Your task to perform on an android device: delete location history Image 0: 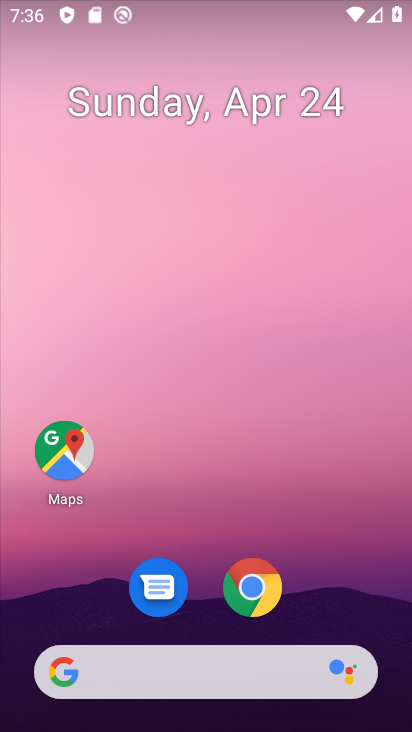
Step 0: drag from (352, 569) to (315, 58)
Your task to perform on an android device: delete location history Image 1: 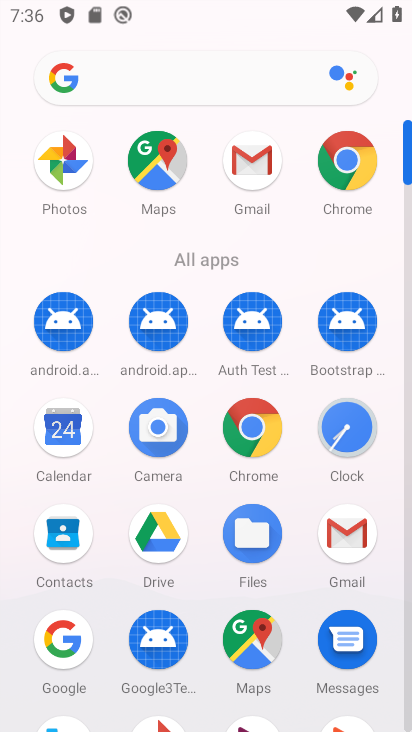
Step 1: drag from (214, 562) to (259, 185)
Your task to perform on an android device: delete location history Image 2: 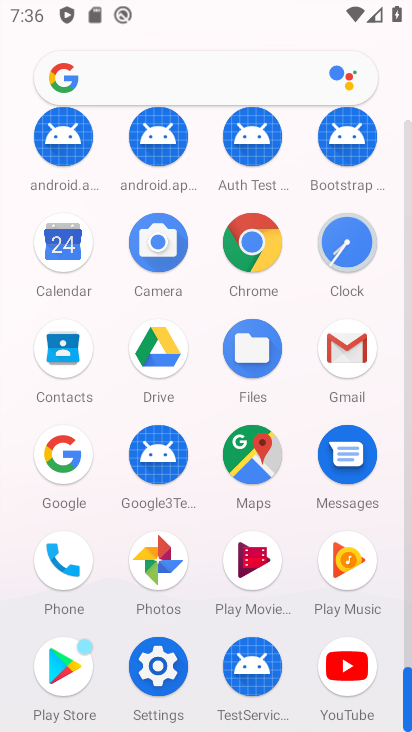
Step 2: click (157, 667)
Your task to perform on an android device: delete location history Image 3: 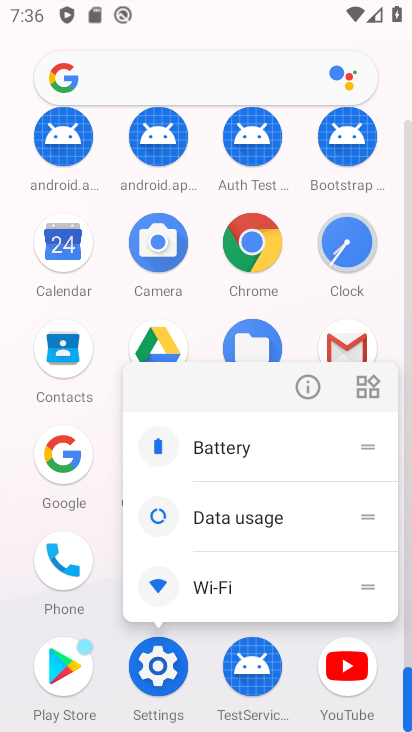
Step 3: click (157, 660)
Your task to perform on an android device: delete location history Image 4: 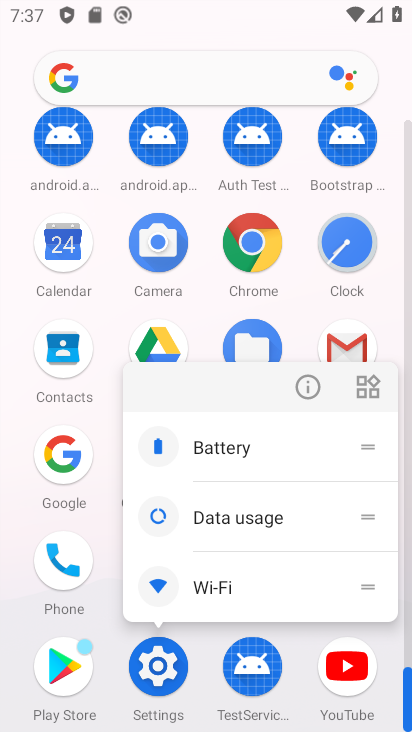
Step 4: click (159, 677)
Your task to perform on an android device: delete location history Image 5: 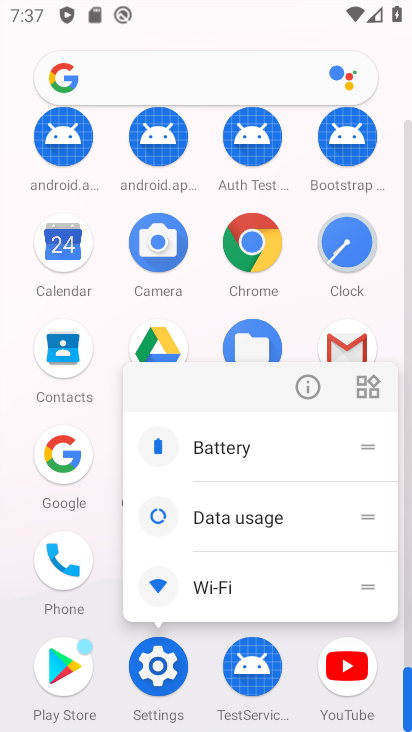
Step 5: click (162, 689)
Your task to perform on an android device: delete location history Image 6: 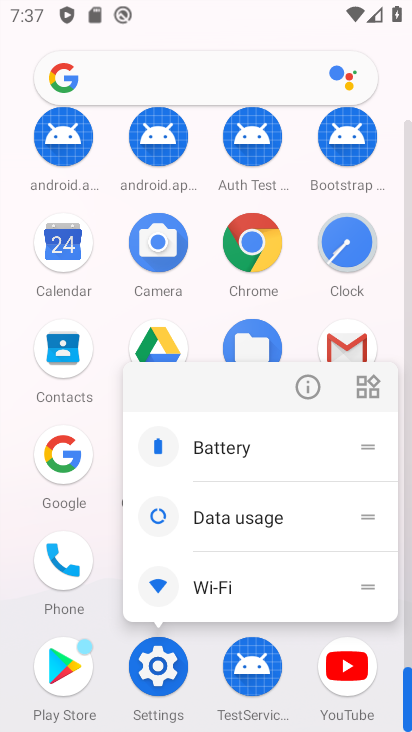
Step 6: click (158, 693)
Your task to perform on an android device: delete location history Image 7: 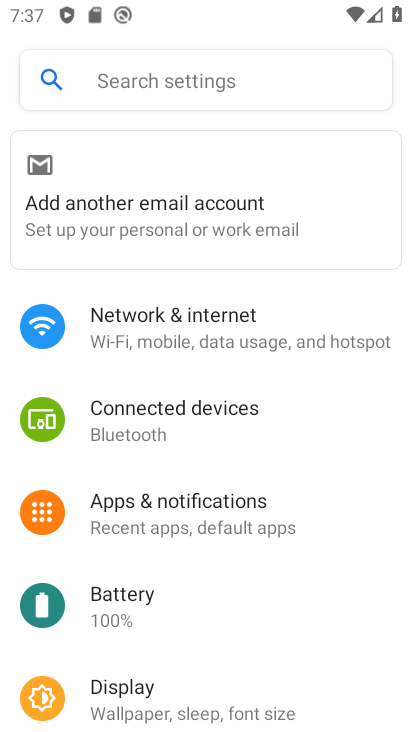
Step 7: drag from (334, 672) to (344, 292)
Your task to perform on an android device: delete location history Image 8: 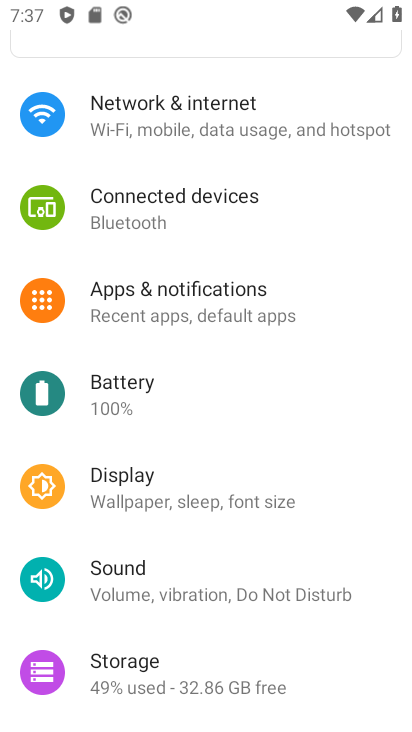
Step 8: drag from (329, 667) to (374, 349)
Your task to perform on an android device: delete location history Image 9: 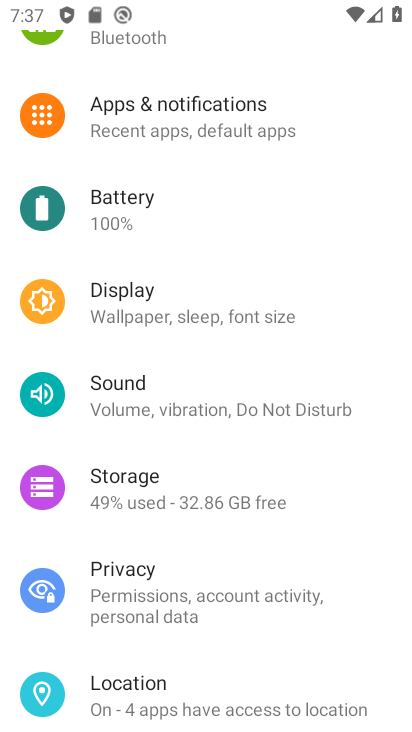
Step 9: click (226, 709)
Your task to perform on an android device: delete location history Image 10: 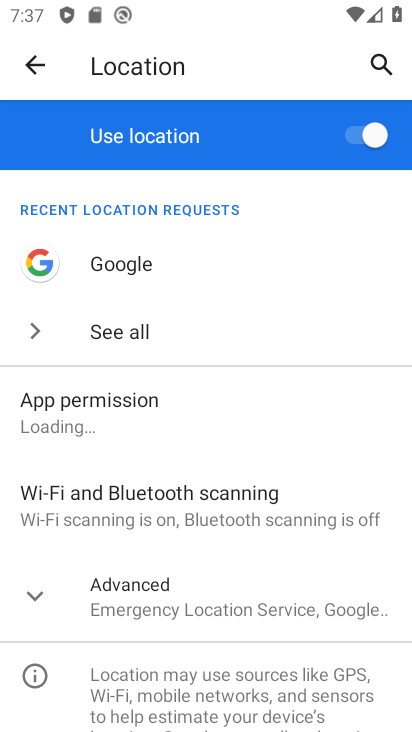
Step 10: click (256, 599)
Your task to perform on an android device: delete location history Image 11: 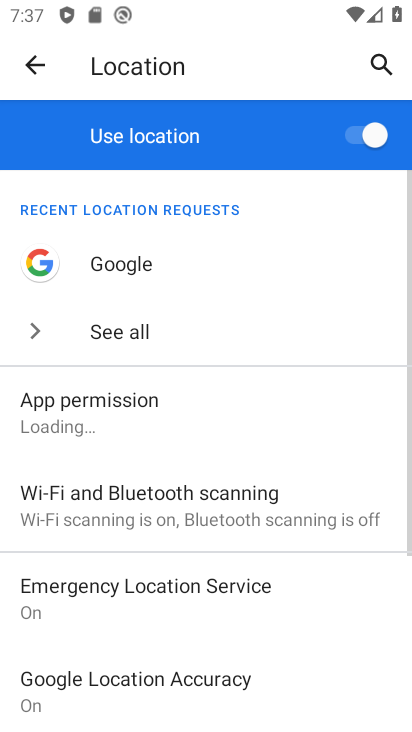
Step 11: drag from (344, 645) to (335, 280)
Your task to perform on an android device: delete location history Image 12: 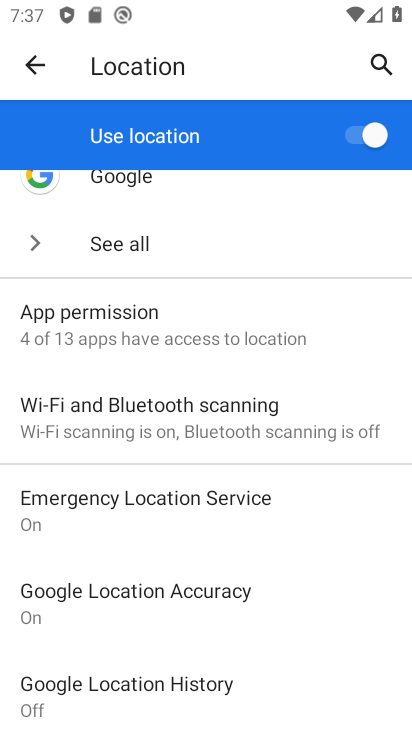
Step 12: drag from (300, 679) to (353, 338)
Your task to perform on an android device: delete location history Image 13: 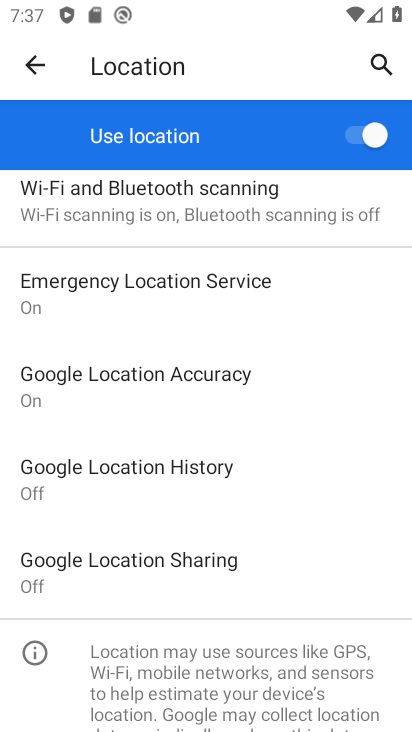
Step 13: click (167, 465)
Your task to perform on an android device: delete location history Image 14: 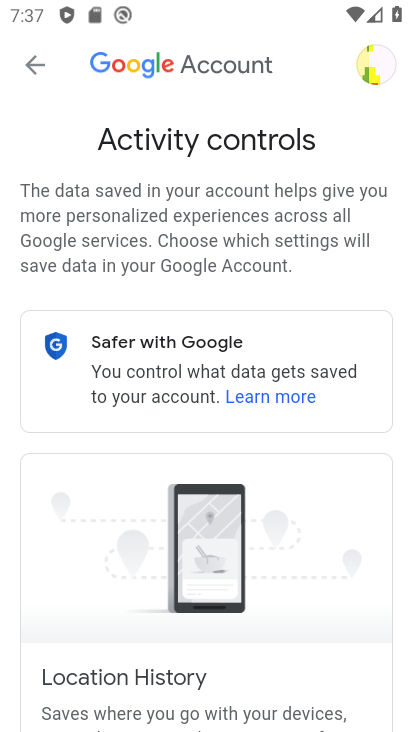
Step 14: drag from (340, 620) to (340, 200)
Your task to perform on an android device: delete location history Image 15: 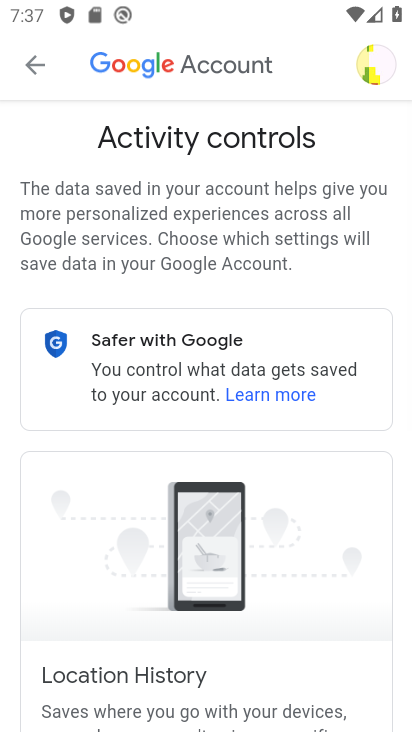
Step 15: drag from (315, 554) to (362, 207)
Your task to perform on an android device: delete location history Image 16: 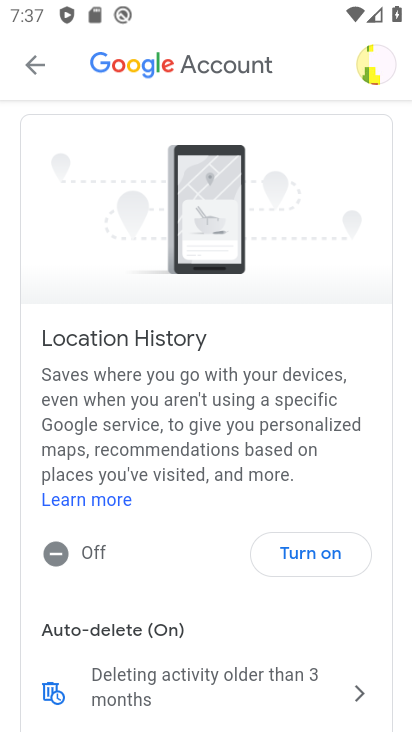
Step 16: drag from (269, 603) to (309, 243)
Your task to perform on an android device: delete location history Image 17: 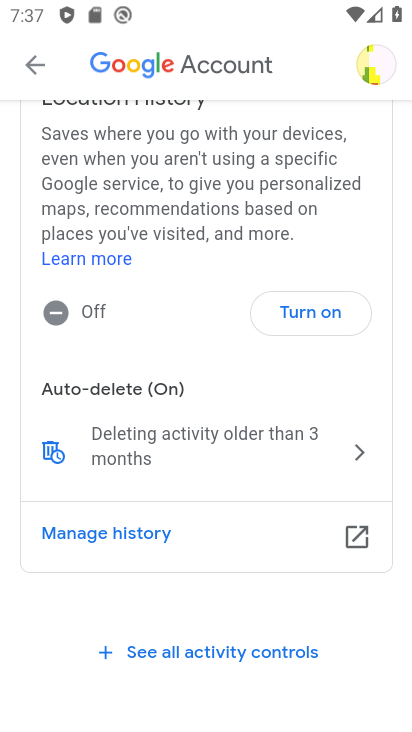
Step 17: click (93, 535)
Your task to perform on an android device: delete location history Image 18: 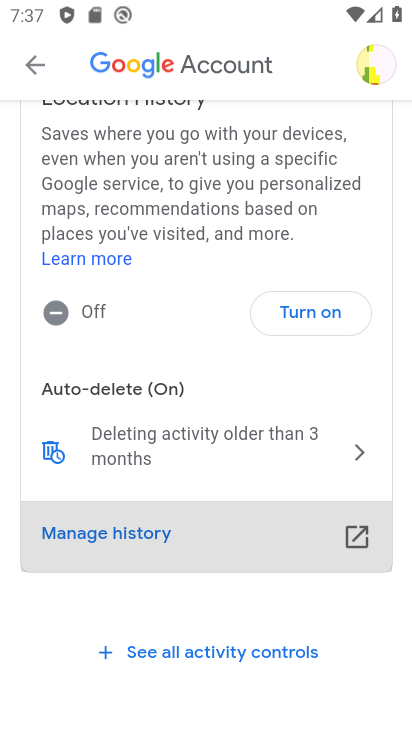
Step 18: click (110, 530)
Your task to perform on an android device: delete location history Image 19: 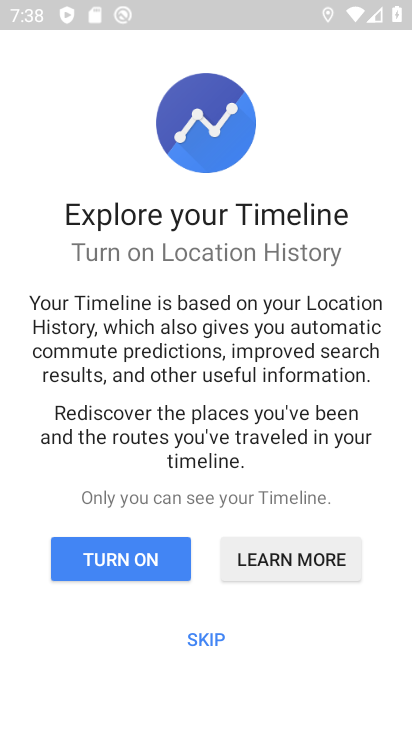
Step 19: click (207, 631)
Your task to perform on an android device: delete location history Image 20: 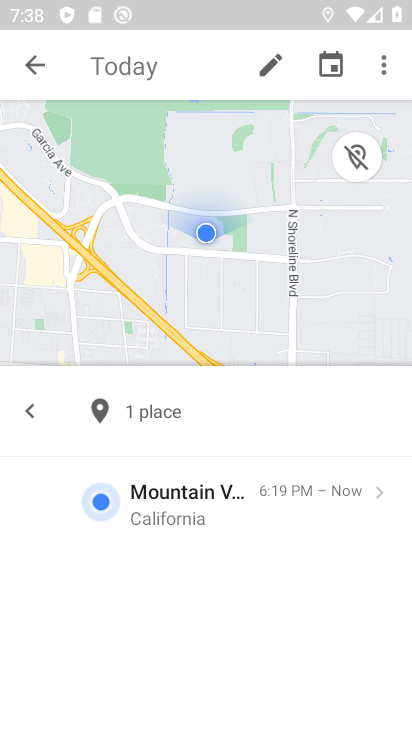
Step 20: click (384, 68)
Your task to perform on an android device: delete location history Image 21: 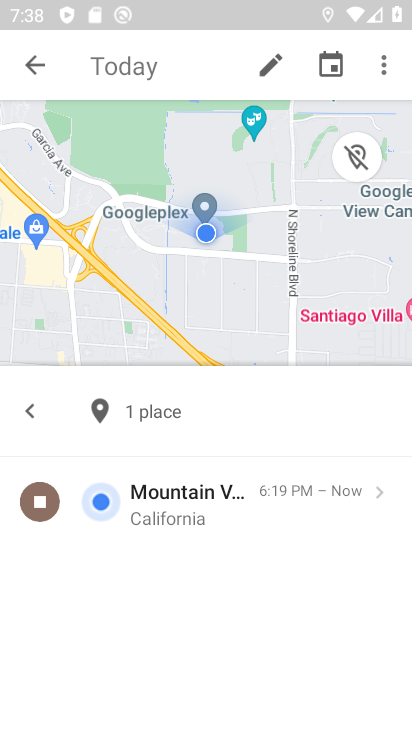
Step 21: click (385, 70)
Your task to perform on an android device: delete location history Image 22: 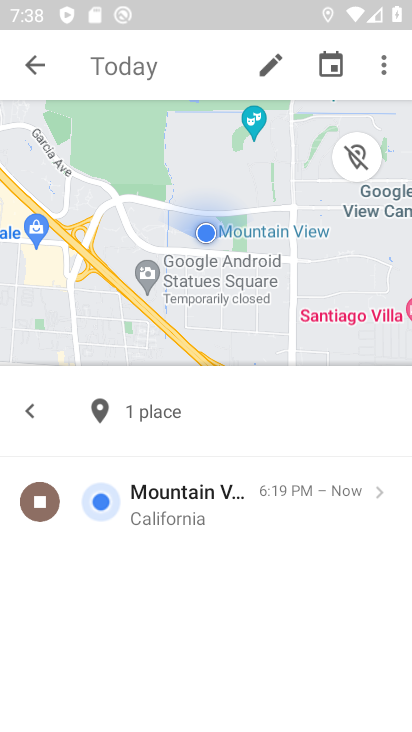
Step 22: click (385, 70)
Your task to perform on an android device: delete location history Image 23: 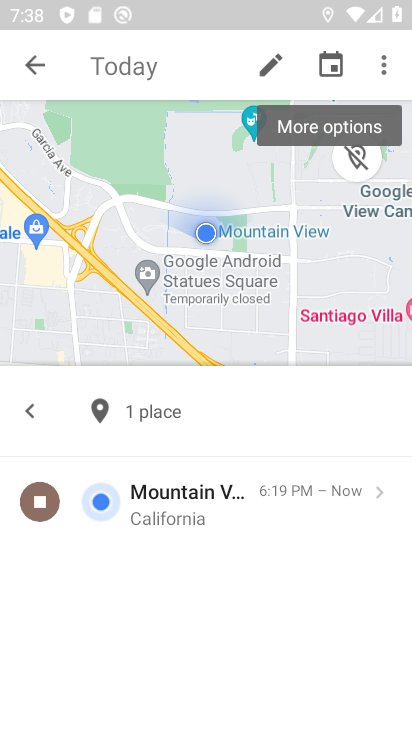
Step 23: drag from (384, 69) to (225, 427)
Your task to perform on an android device: delete location history Image 24: 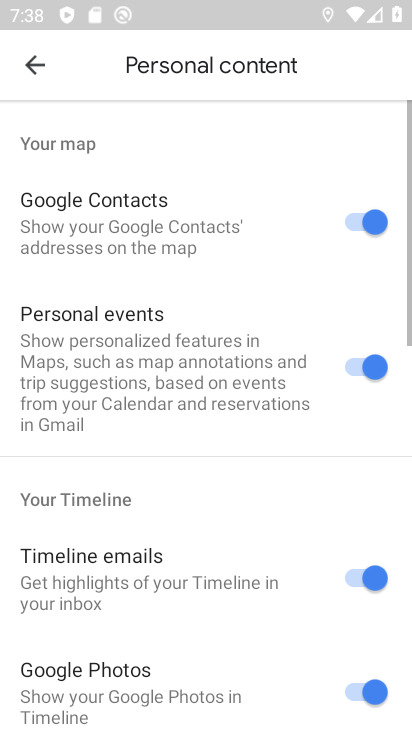
Step 24: drag from (215, 627) to (214, 226)
Your task to perform on an android device: delete location history Image 25: 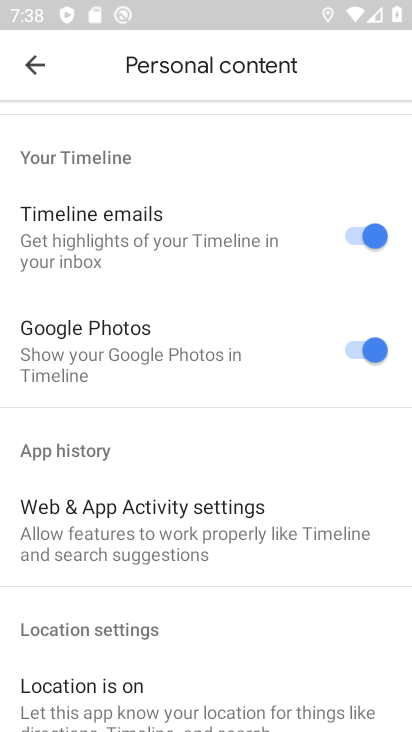
Step 25: drag from (231, 686) to (239, 226)
Your task to perform on an android device: delete location history Image 26: 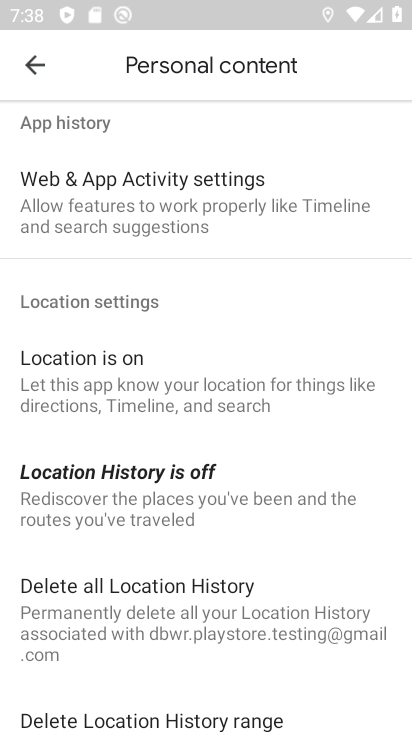
Step 26: drag from (239, 666) to (244, 357)
Your task to perform on an android device: delete location history Image 27: 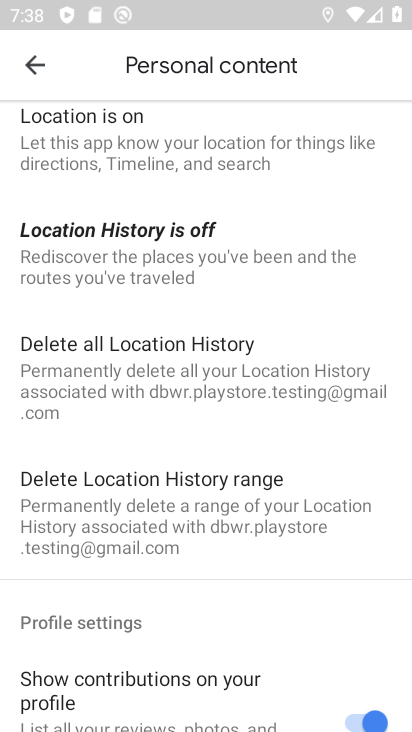
Step 27: click (181, 372)
Your task to perform on an android device: delete location history Image 28: 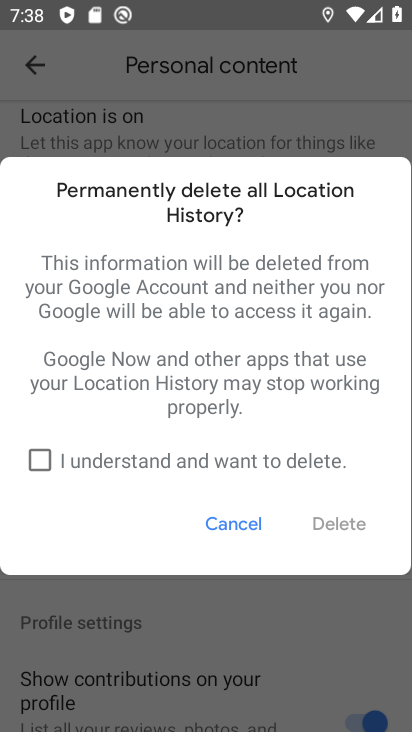
Step 28: click (33, 462)
Your task to perform on an android device: delete location history Image 29: 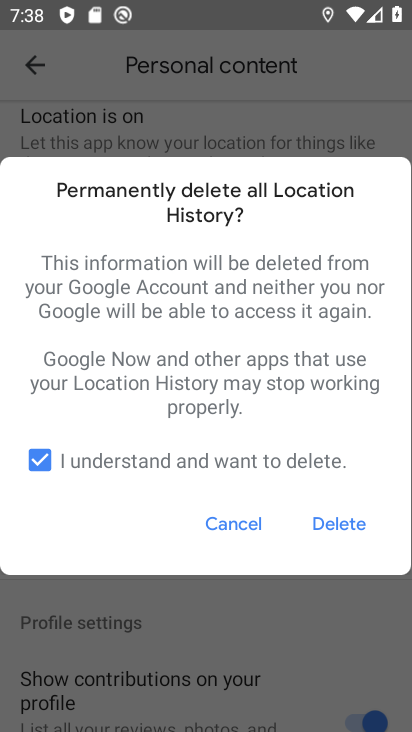
Step 29: click (337, 523)
Your task to perform on an android device: delete location history Image 30: 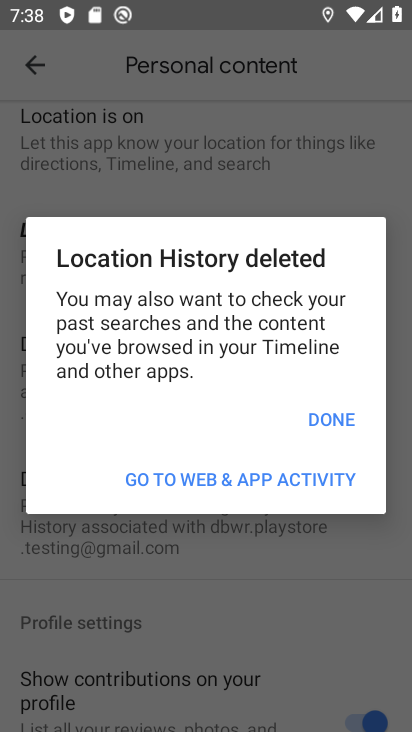
Step 30: click (329, 425)
Your task to perform on an android device: delete location history Image 31: 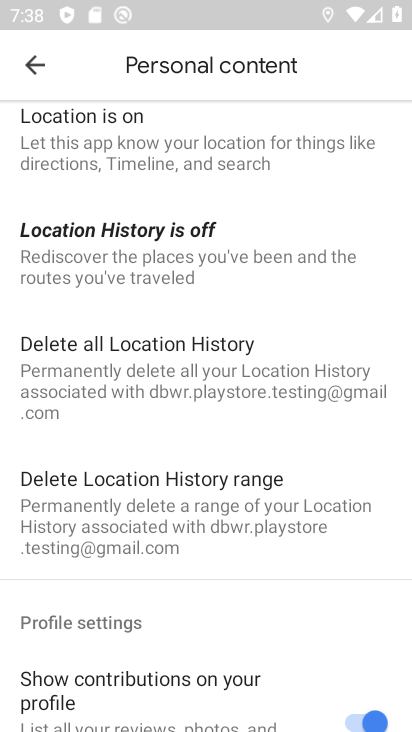
Step 31: task complete